Your task to perform on an android device: toggle notification dots Image 0: 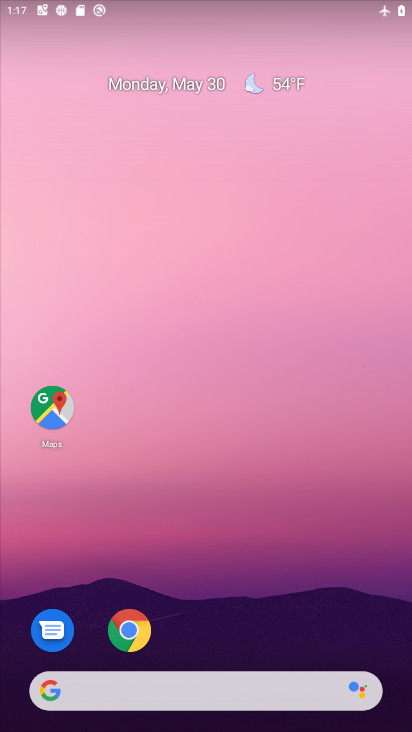
Step 0: press home button
Your task to perform on an android device: toggle notification dots Image 1: 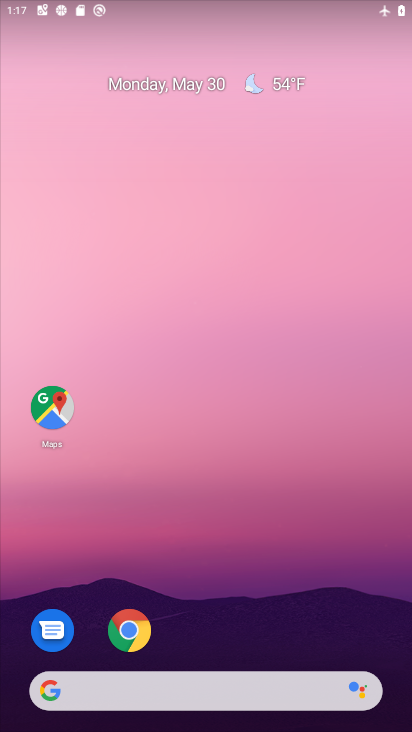
Step 1: drag from (169, 693) to (344, 83)
Your task to perform on an android device: toggle notification dots Image 2: 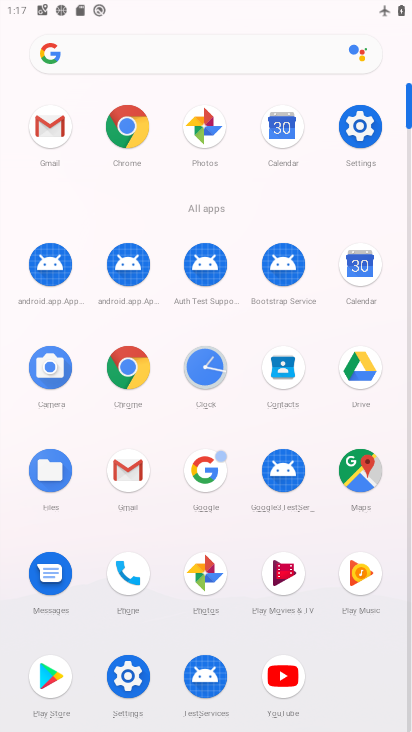
Step 2: click (354, 135)
Your task to perform on an android device: toggle notification dots Image 3: 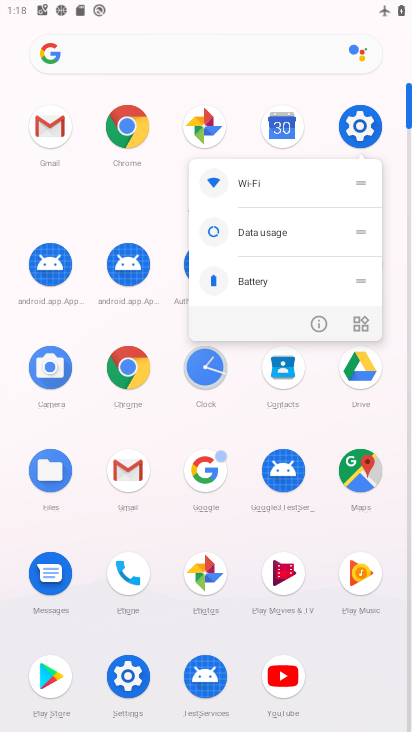
Step 3: click (355, 132)
Your task to perform on an android device: toggle notification dots Image 4: 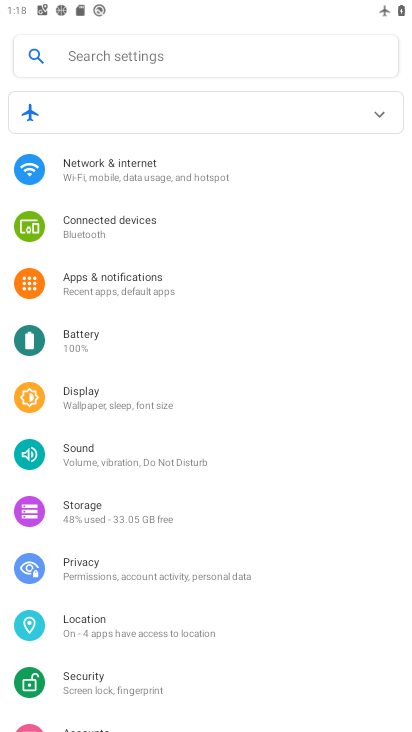
Step 4: click (130, 280)
Your task to perform on an android device: toggle notification dots Image 5: 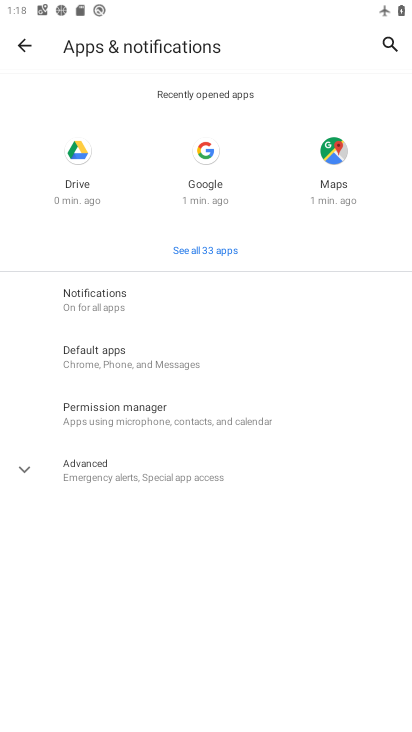
Step 5: click (109, 302)
Your task to perform on an android device: toggle notification dots Image 6: 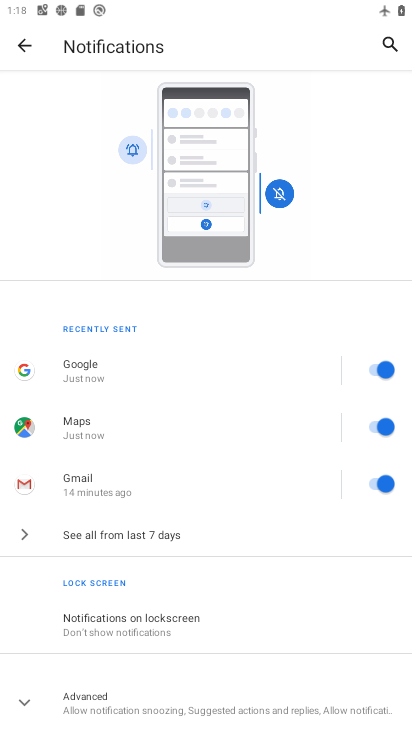
Step 6: drag from (209, 621) to (334, 234)
Your task to perform on an android device: toggle notification dots Image 7: 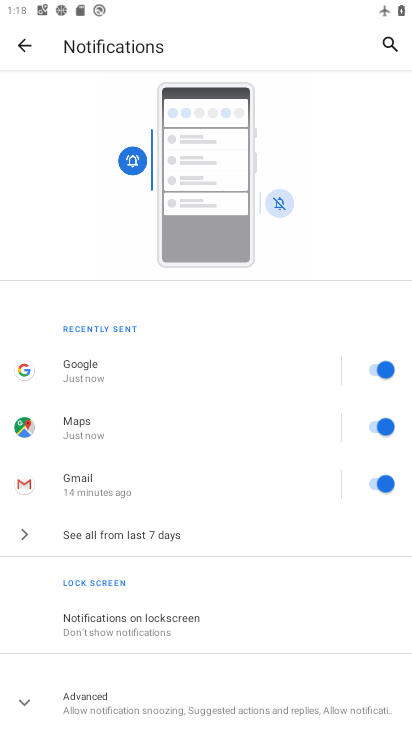
Step 7: click (166, 694)
Your task to perform on an android device: toggle notification dots Image 8: 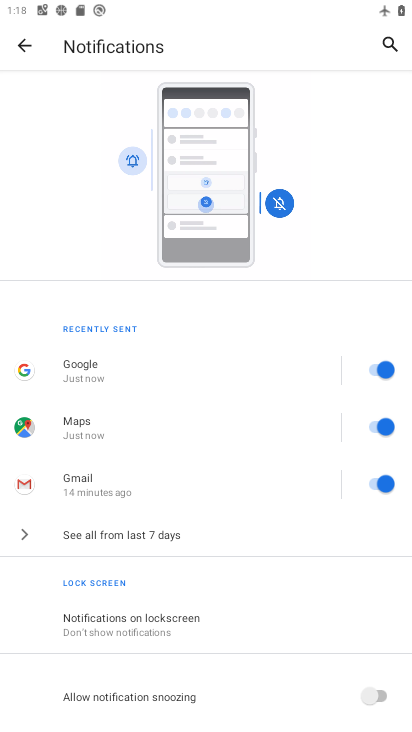
Step 8: drag from (221, 612) to (386, 189)
Your task to perform on an android device: toggle notification dots Image 9: 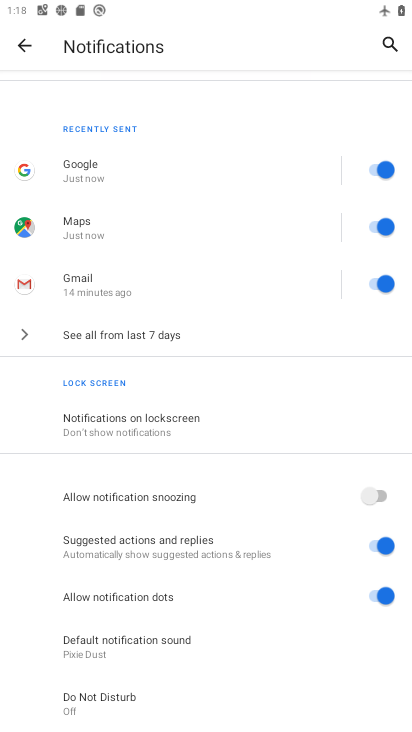
Step 9: click (374, 598)
Your task to perform on an android device: toggle notification dots Image 10: 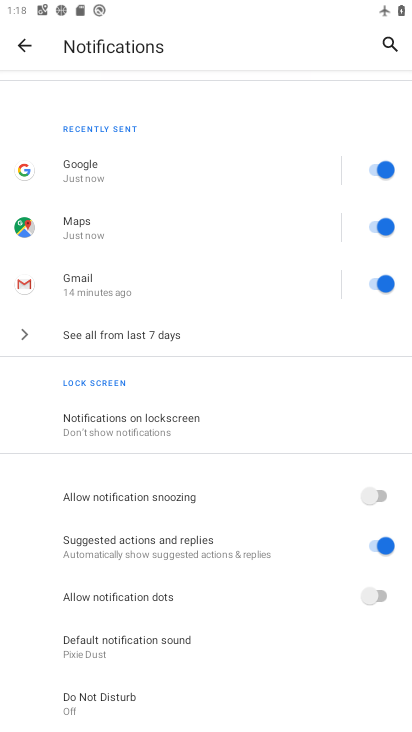
Step 10: task complete